Your task to perform on an android device: Open Google Chrome and open the bookmarks view Image 0: 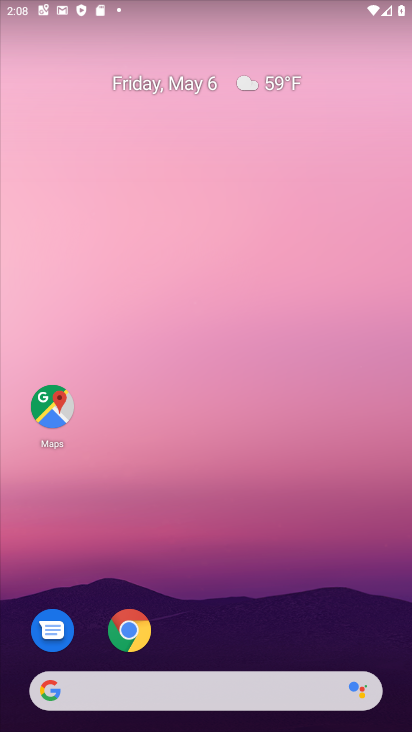
Step 0: click (116, 628)
Your task to perform on an android device: Open Google Chrome and open the bookmarks view Image 1: 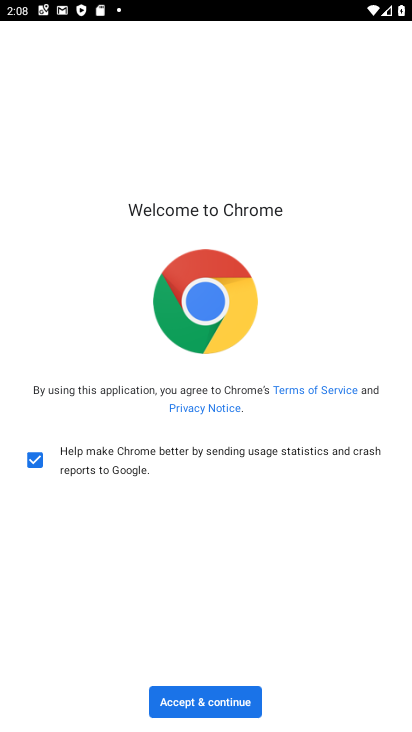
Step 1: click (187, 693)
Your task to perform on an android device: Open Google Chrome and open the bookmarks view Image 2: 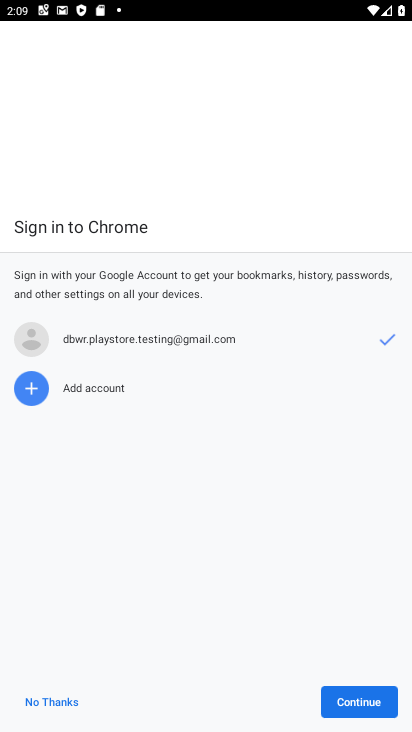
Step 2: click (337, 704)
Your task to perform on an android device: Open Google Chrome and open the bookmarks view Image 3: 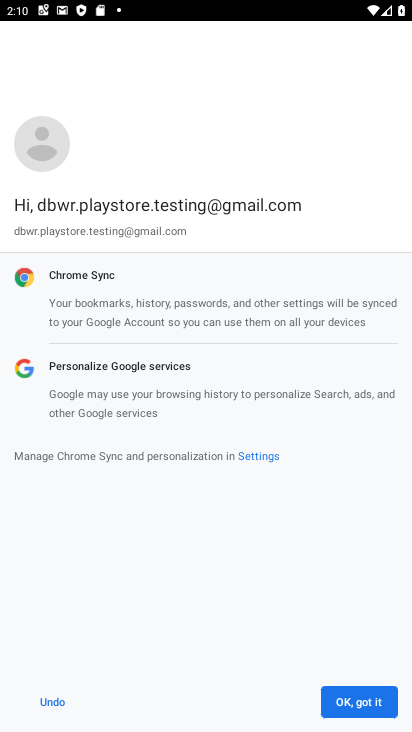
Step 3: click (382, 695)
Your task to perform on an android device: Open Google Chrome and open the bookmarks view Image 4: 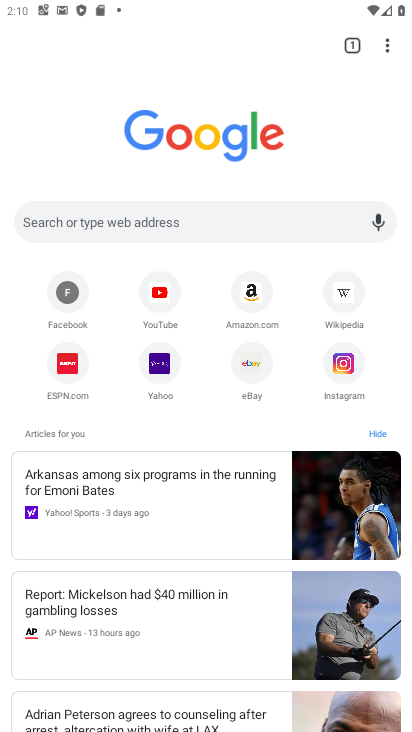
Step 4: click (386, 40)
Your task to perform on an android device: Open Google Chrome and open the bookmarks view Image 5: 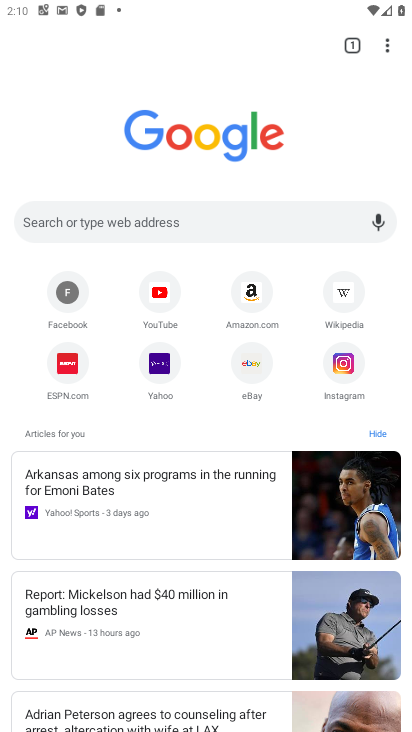
Step 5: task complete